Your task to perform on an android device: check out phone information Image 0: 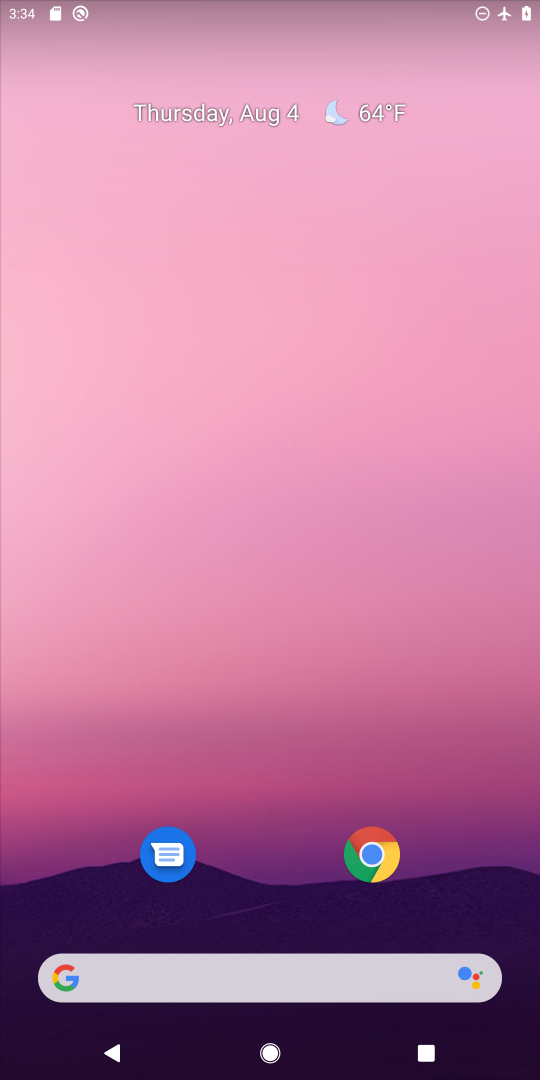
Step 0: drag from (289, 857) to (285, 346)
Your task to perform on an android device: check out phone information Image 1: 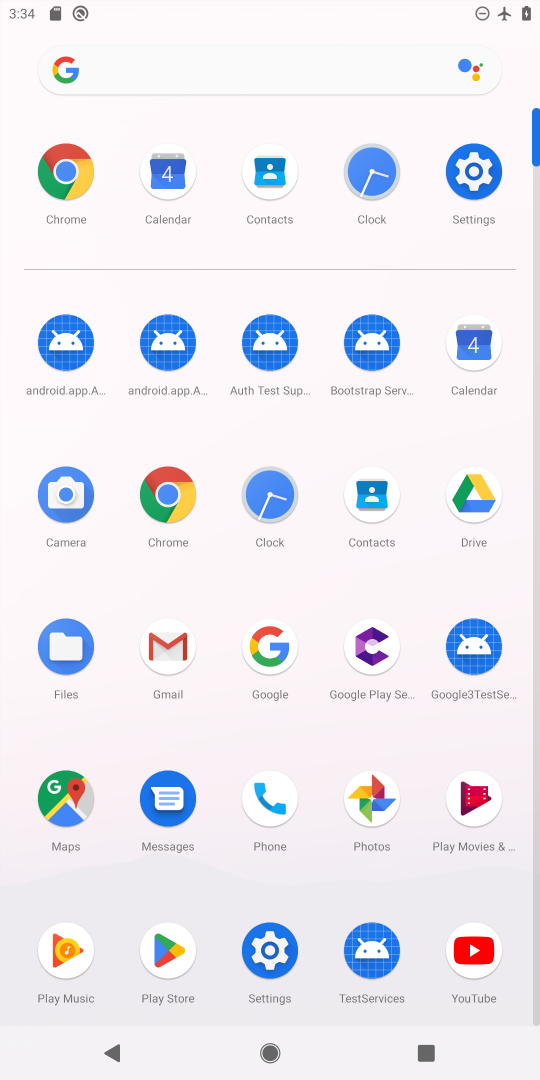
Step 1: click (485, 177)
Your task to perform on an android device: check out phone information Image 2: 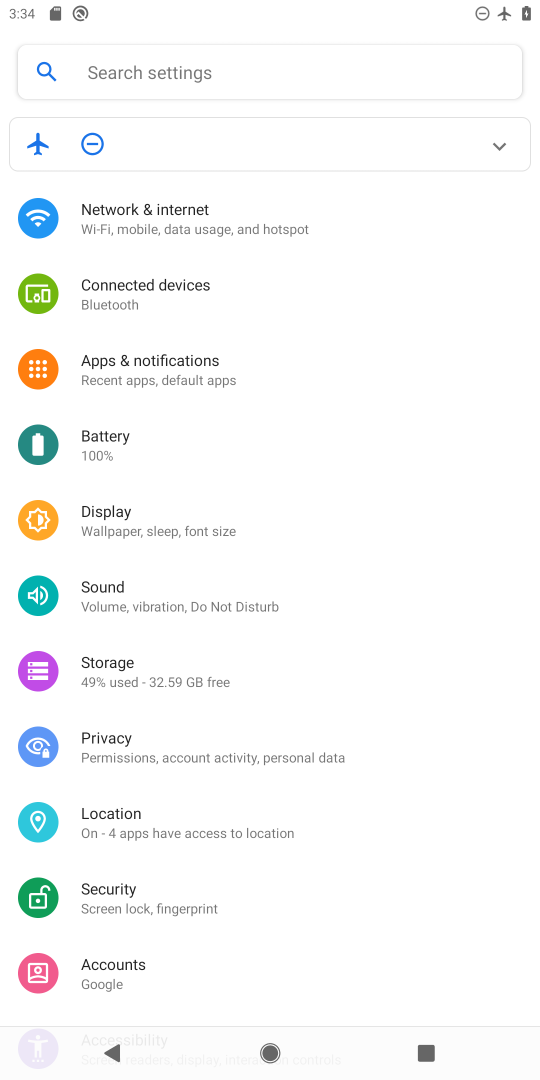
Step 2: drag from (315, 895) to (321, 279)
Your task to perform on an android device: check out phone information Image 3: 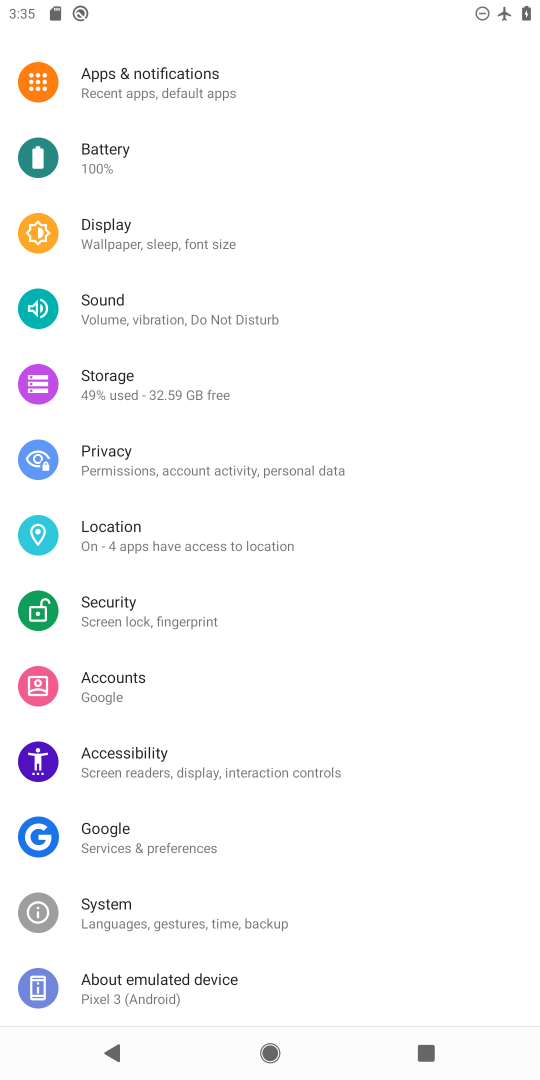
Step 3: click (209, 982)
Your task to perform on an android device: check out phone information Image 4: 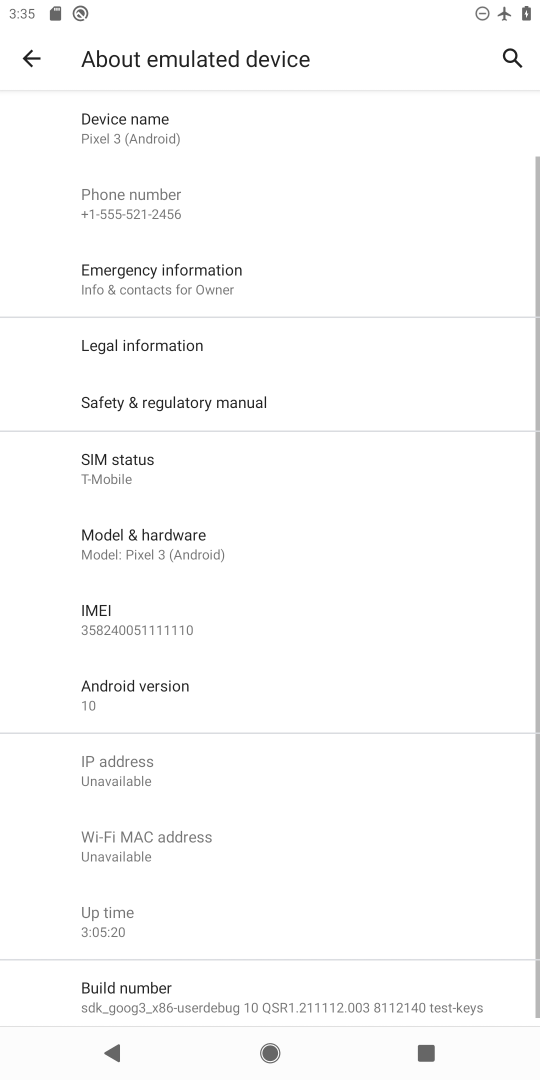
Step 4: task complete